Your task to perform on an android device: Open Yahoo.com Image 0: 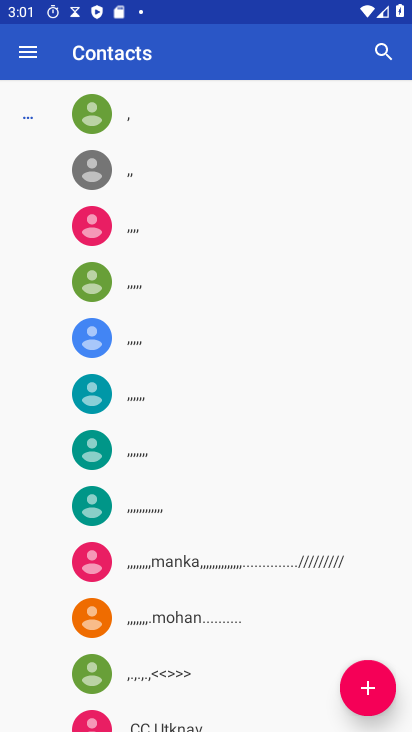
Step 0: press home button
Your task to perform on an android device: Open Yahoo.com Image 1: 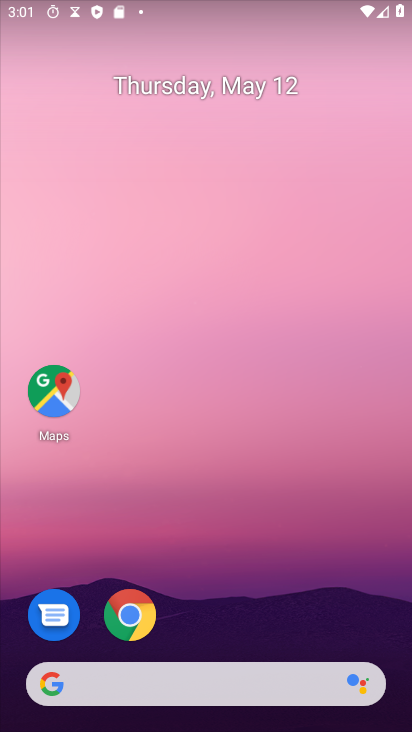
Step 1: click (121, 605)
Your task to perform on an android device: Open Yahoo.com Image 2: 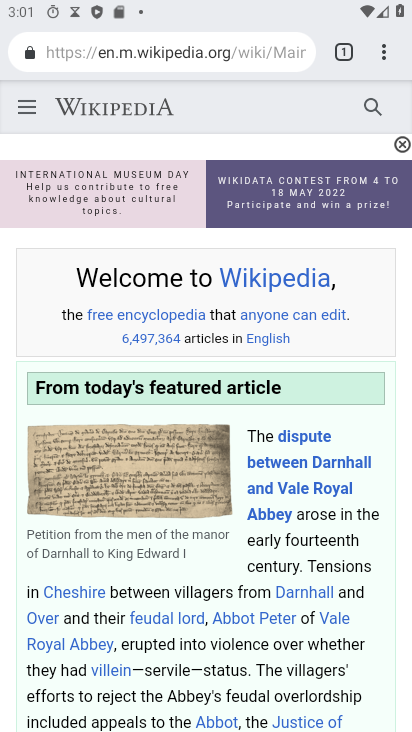
Step 2: click (338, 56)
Your task to perform on an android device: Open Yahoo.com Image 3: 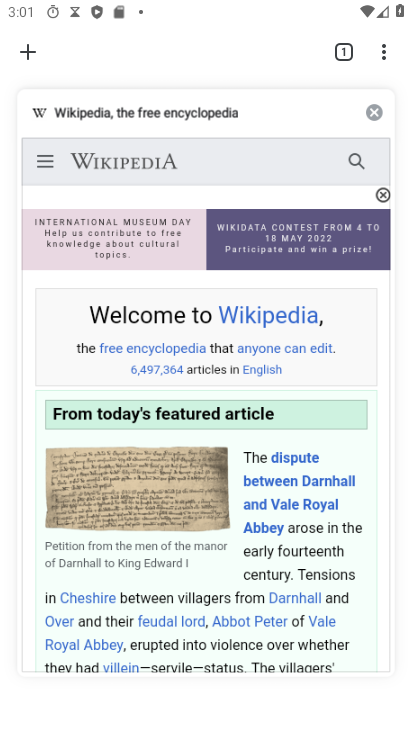
Step 3: click (370, 117)
Your task to perform on an android device: Open Yahoo.com Image 4: 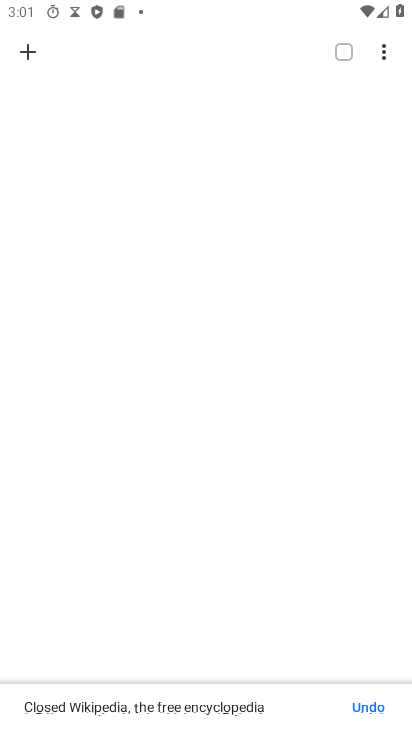
Step 4: click (23, 59)
Your task to perform on an android device: Open Yahoo.com Image 5: 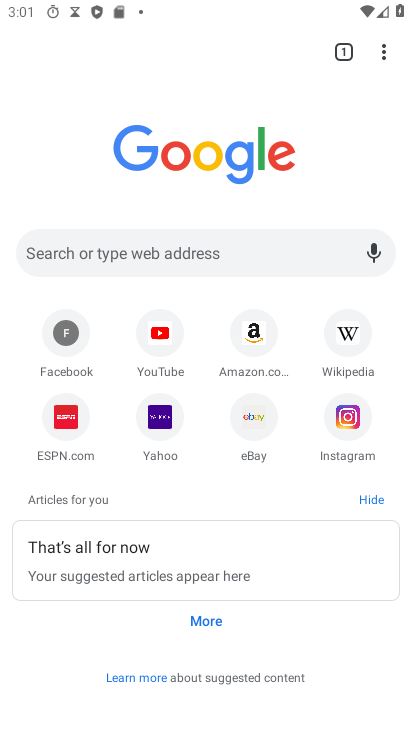
Step 5: click (157, 415)
Your task to perform on an android device: Open Yahoo.com Image 6: 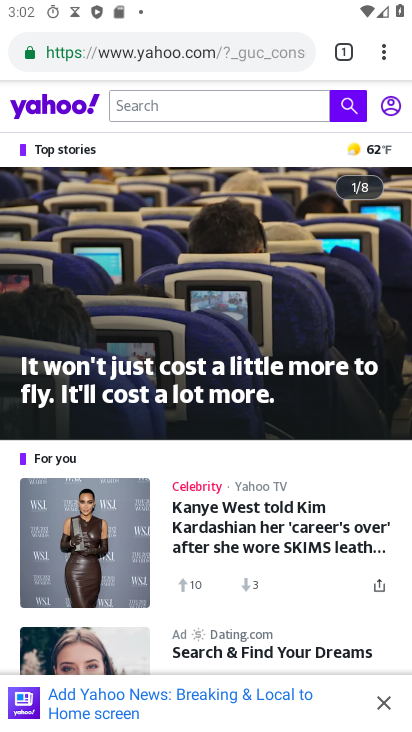
Step 6: task complete